Your task to perform on an android device: Check the weather Image 0: 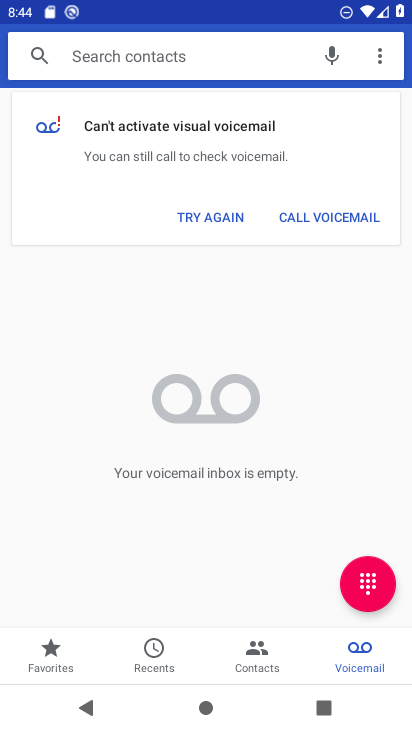
Step 0: press home button
Your task to perform on an android device: Check the weather Image 1: 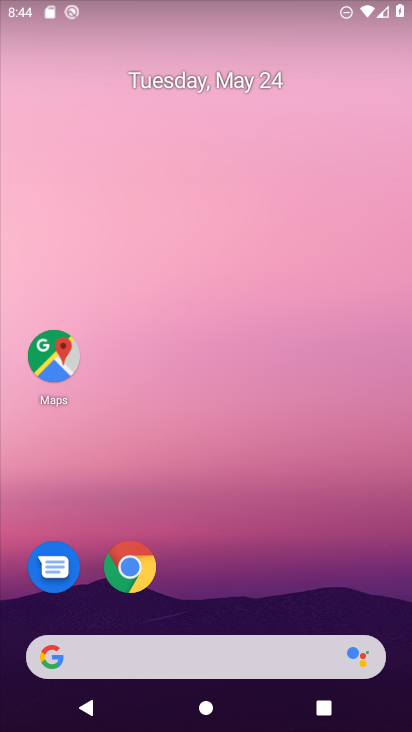
Step 1: click (58, 659)
Your task to perform on an android device: Check the weather Image 2: 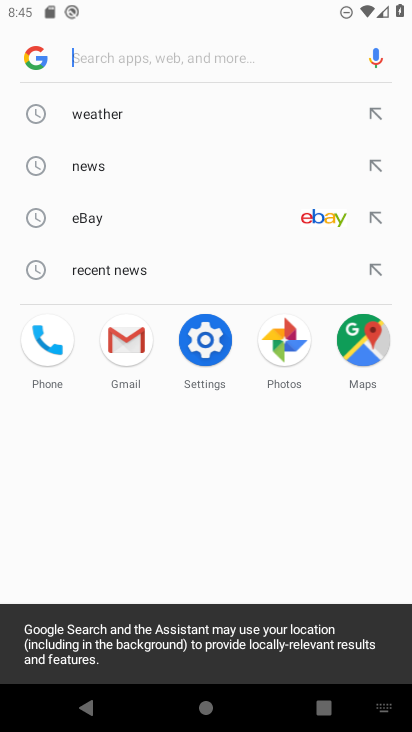
Step 2: click (102, 113)
Your task to perform on an android device: Check the weather Image 3: 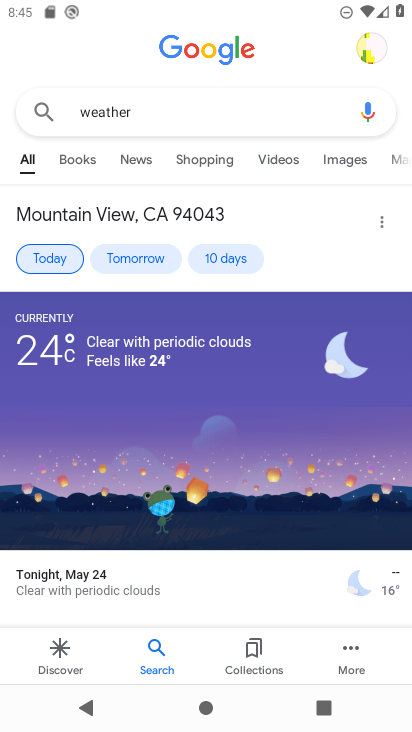
Step 3: task complete